Your task to perform on an android device: change text size in settings app Image 0: 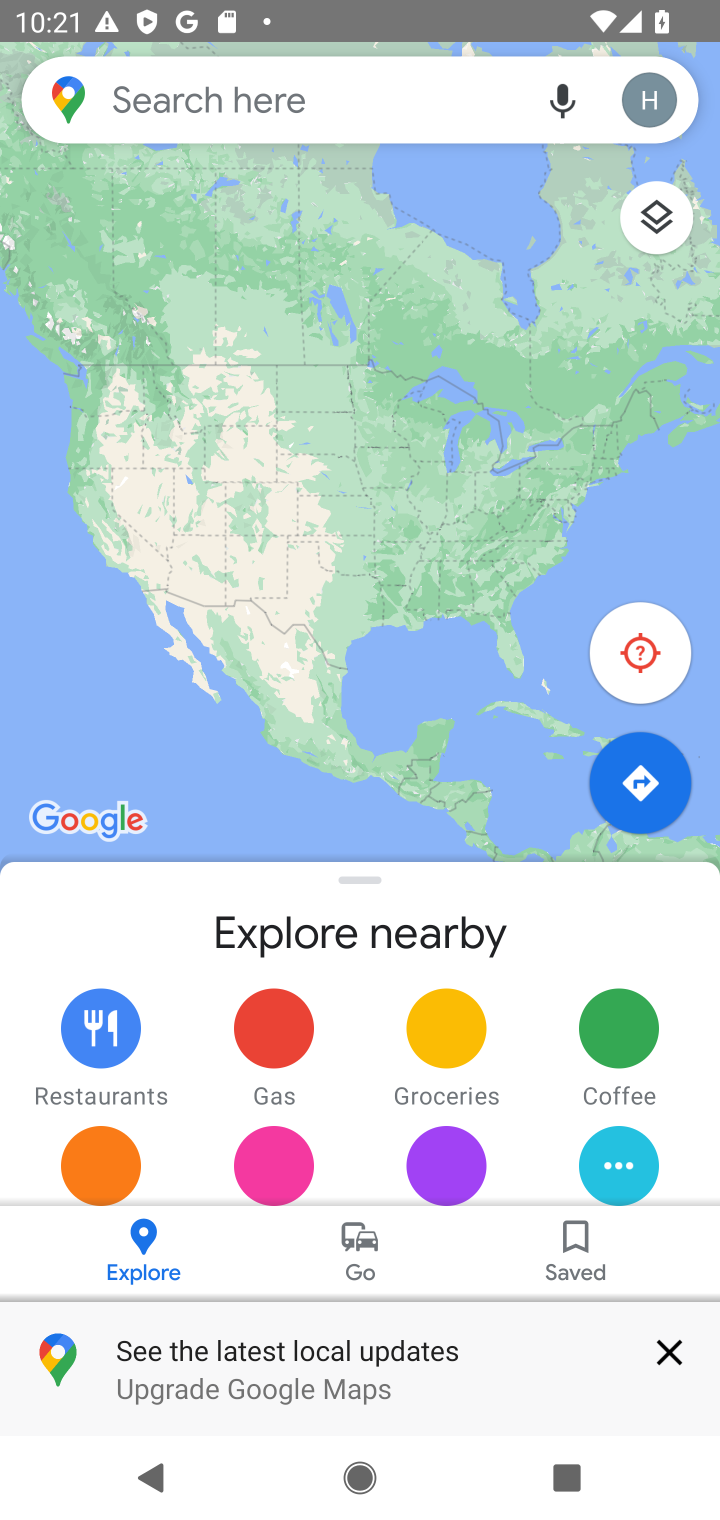
Step 0: press home button
Your task to perform on an android device: change text size in settings app Image 1: 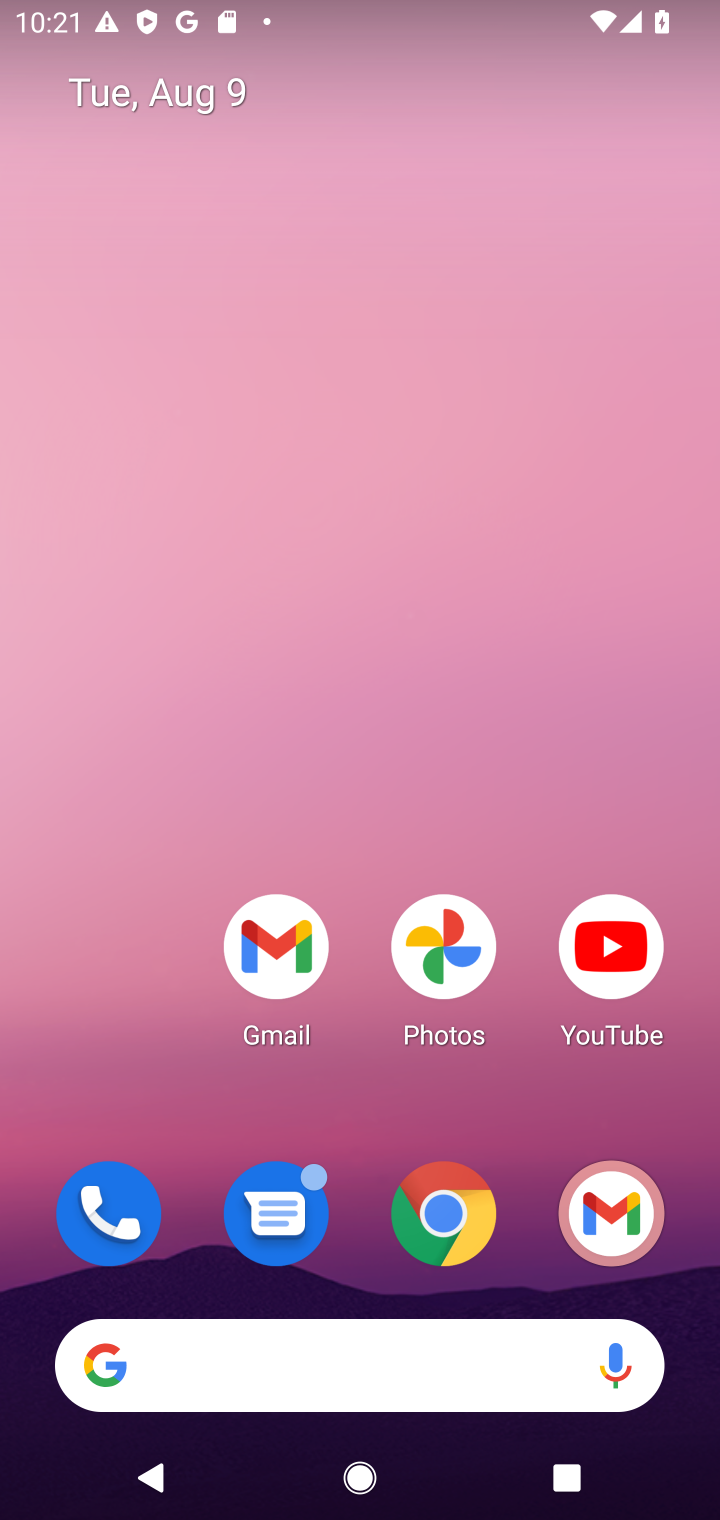
Step 1: drag from (378, 1301) to (218, 78)
Your task to perform on an android device: change text size in settings app Image 2: 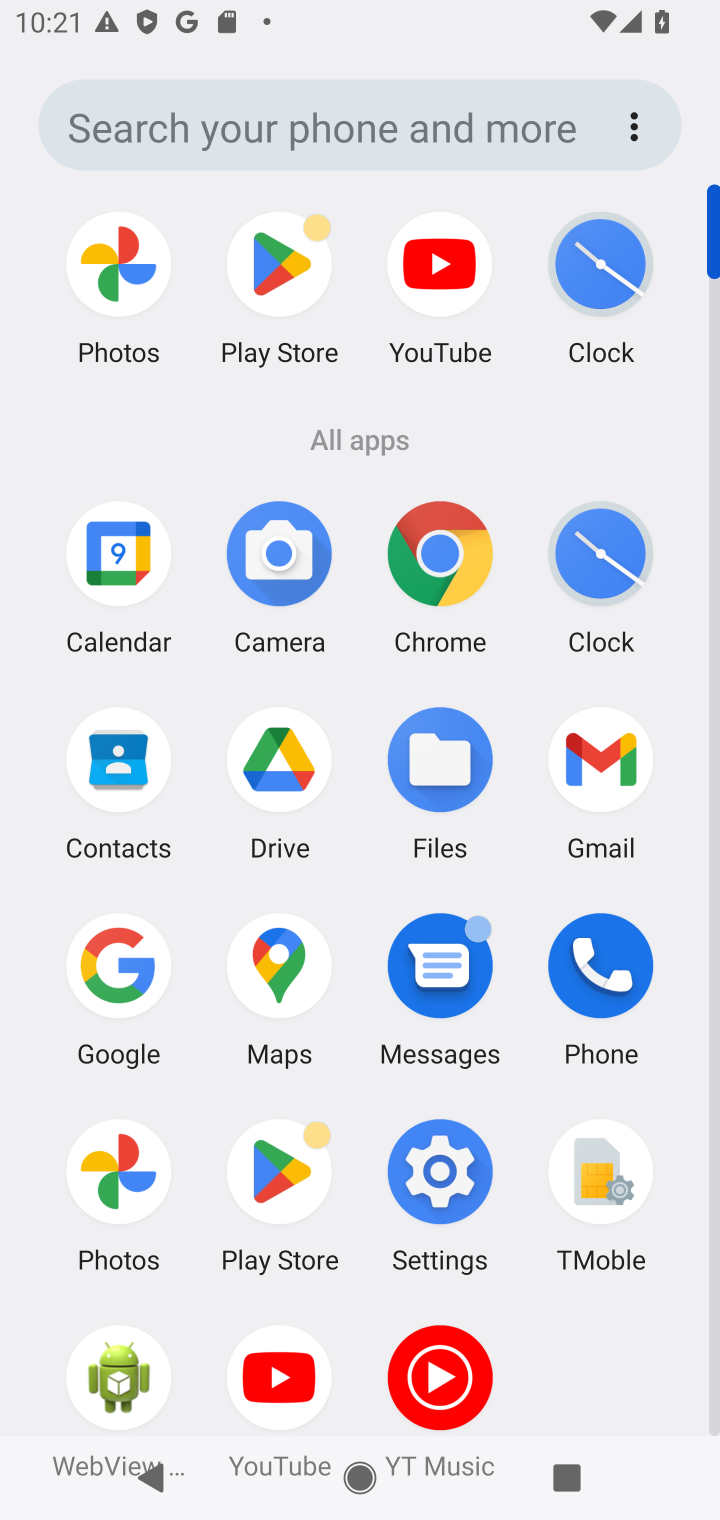
Step 2: click (431, 1214)
Your task to perform on an android device: change text size in settings app Image 3: 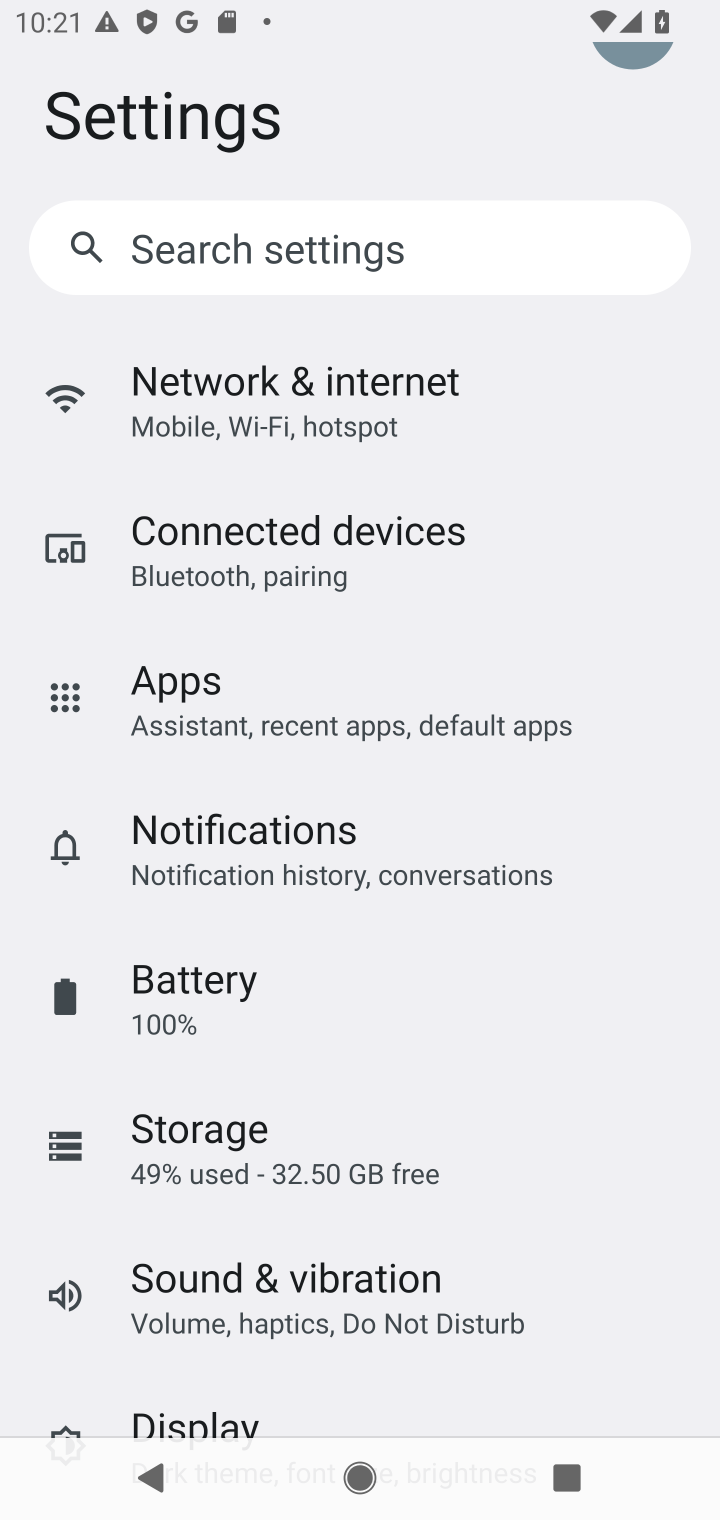
Step 3: click (232, 1418)
Your task to perform on an android device: change text size in settings app Image 4: 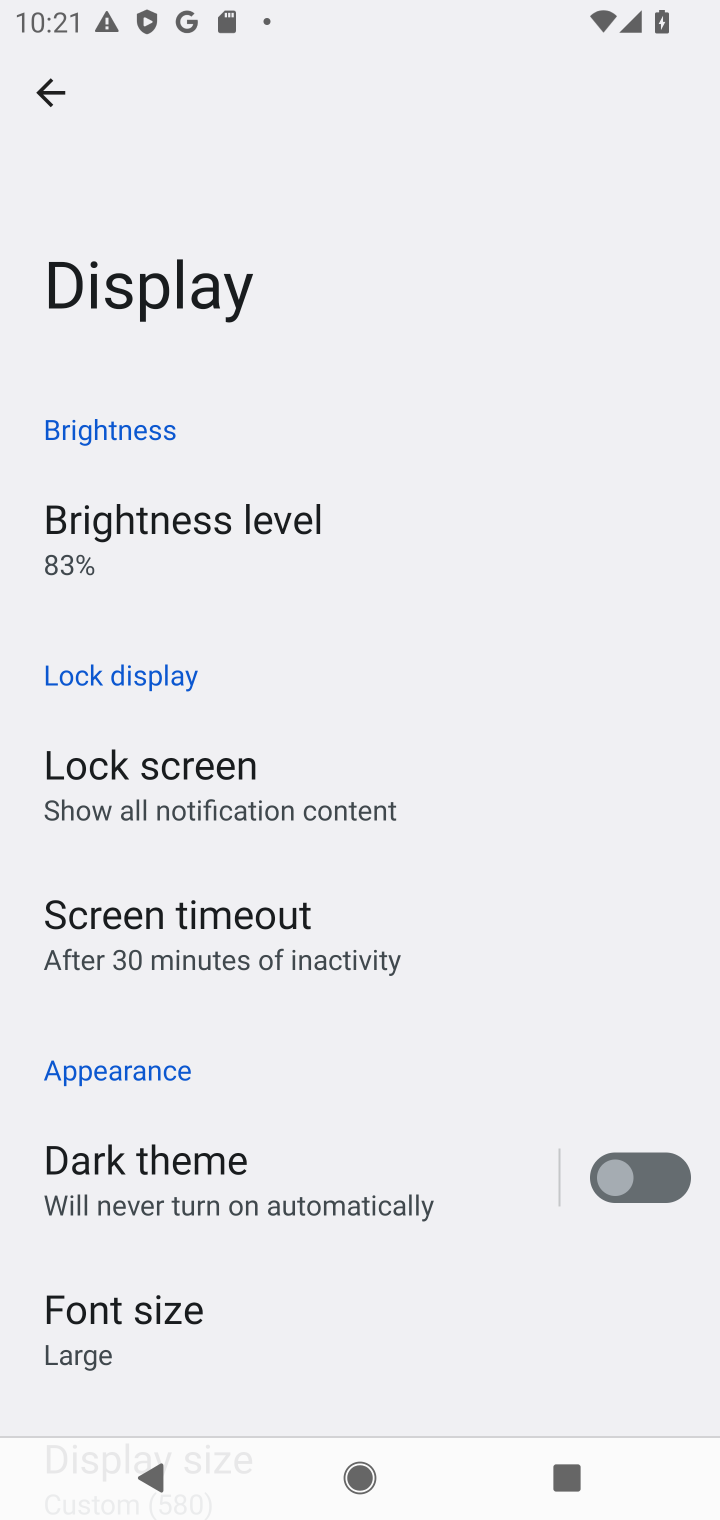
Step 4: drag from (162, 1323) to (83, 399)
Your task to perform on an android device: change text size in settings app Image 5: 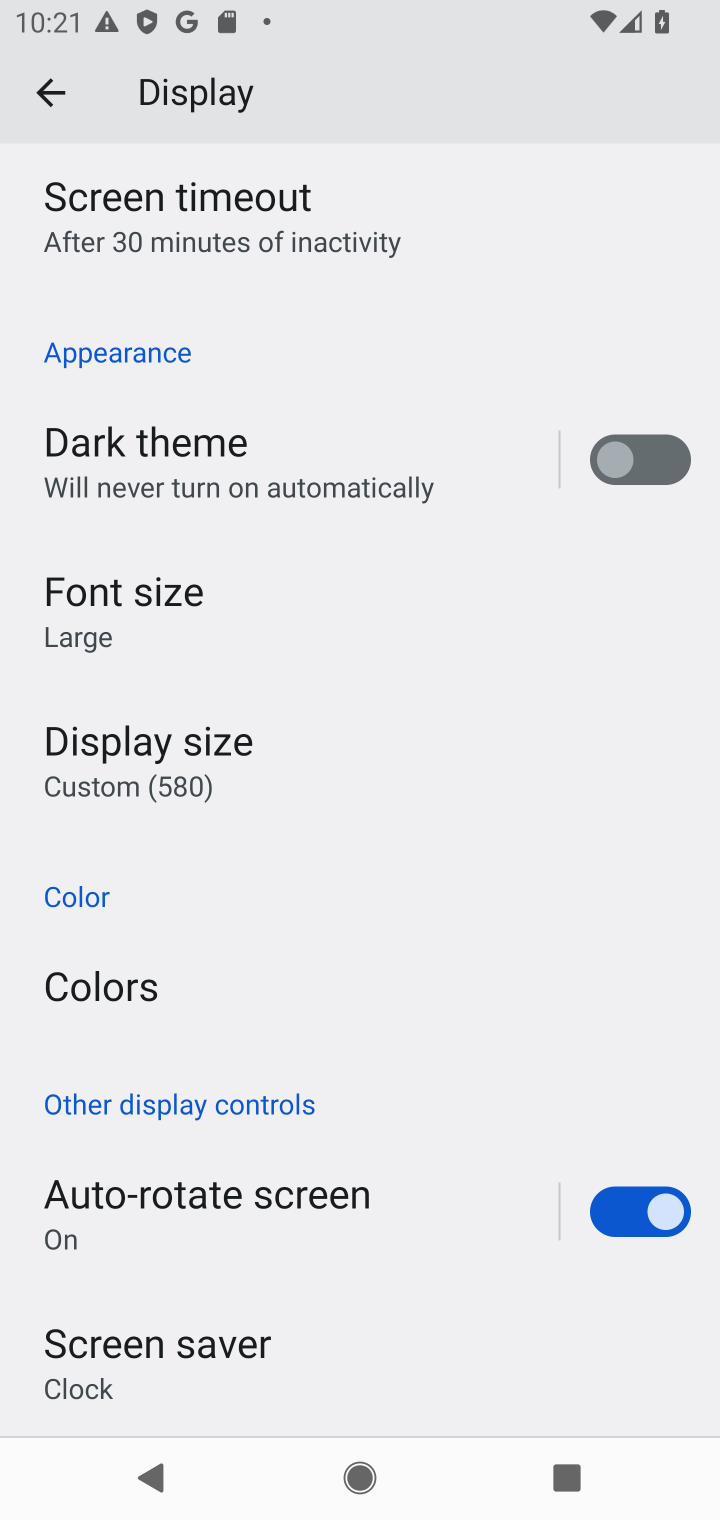
Step 5: click (132, 615)
Your task to perform on an android device: change text size in settings app Image 6: 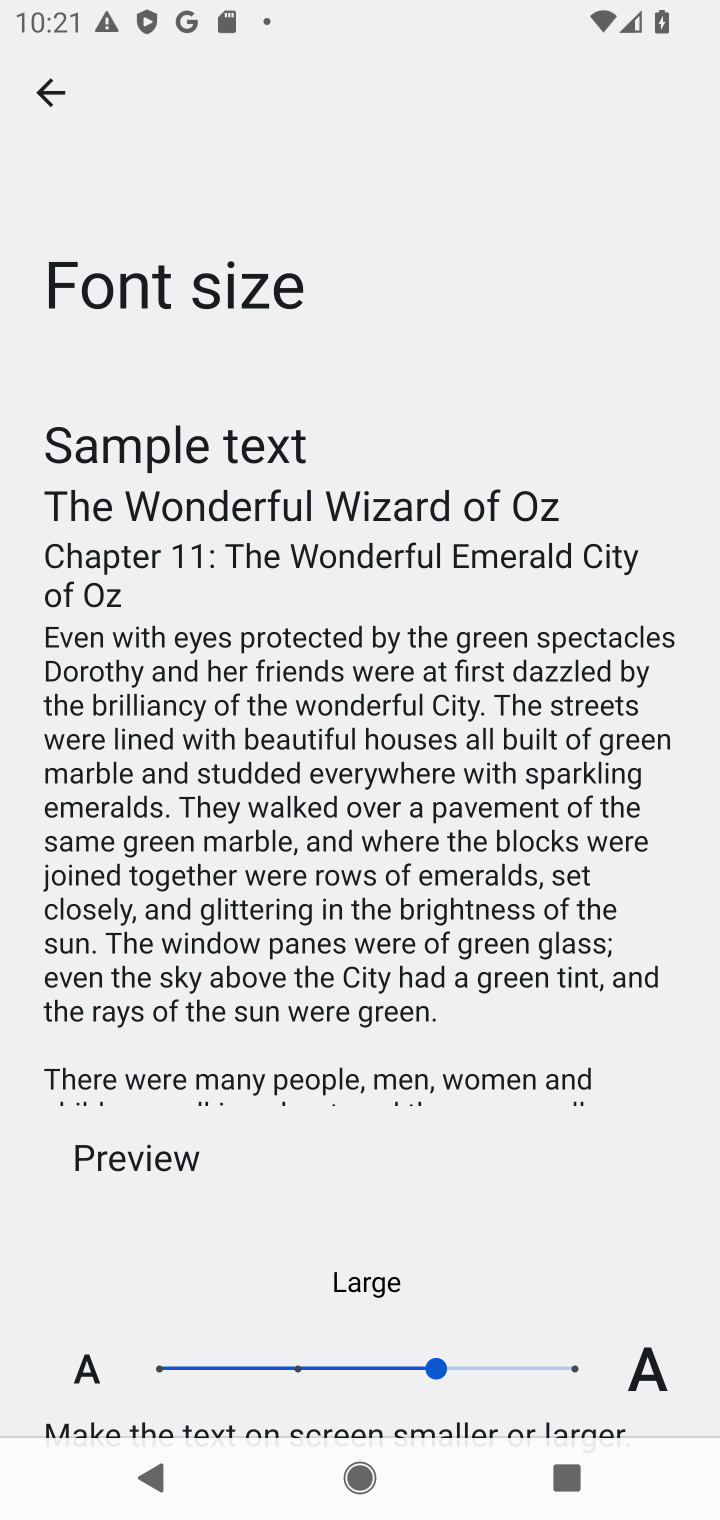
Step 6: click (320, 1357)
Your task to perform on an android device: change text size in settings app Image 7: 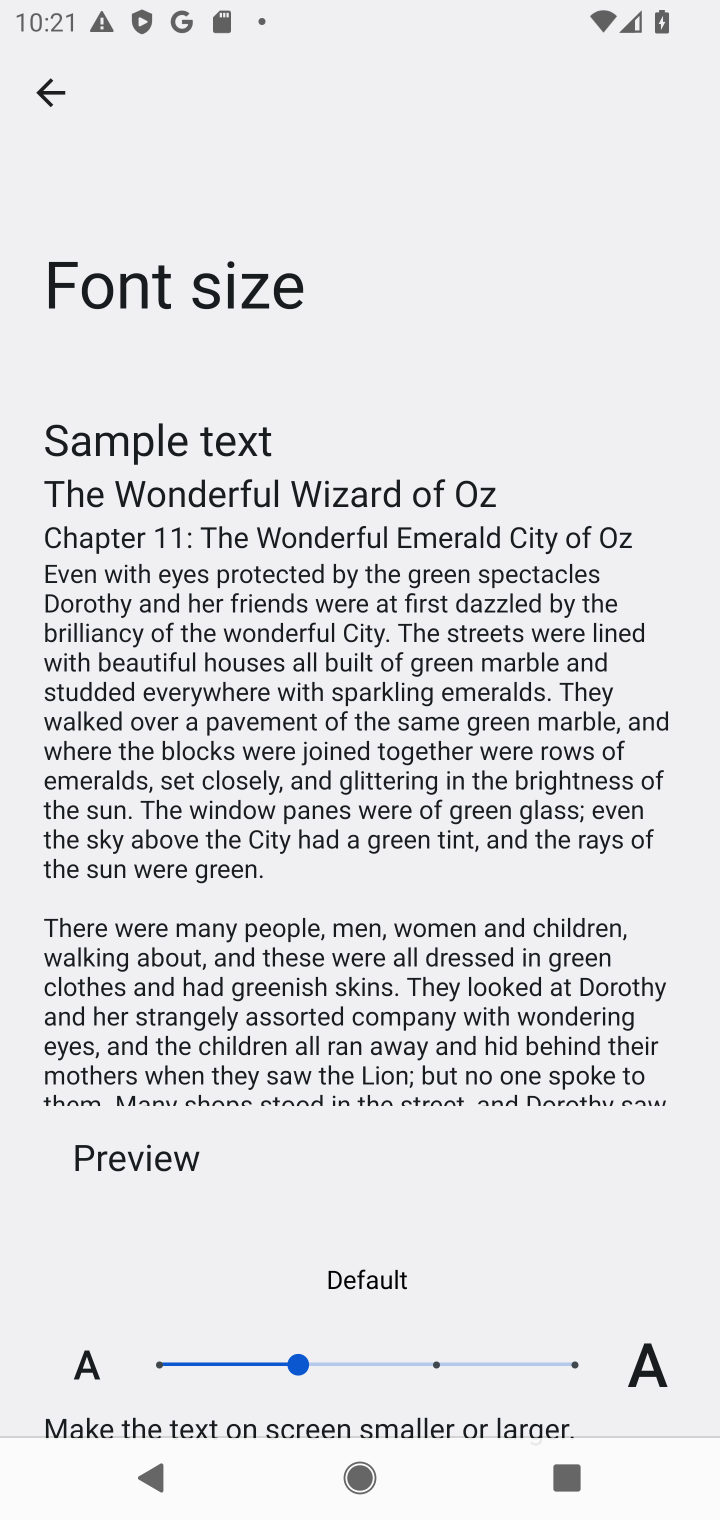
Step 7: task complete